Your task to perform on an android device: Go to Google Image 0: 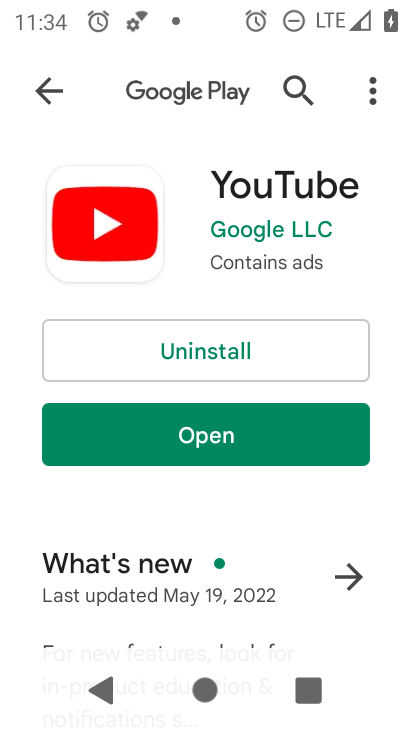
Step 0: press back button
Your task to perform on an android device: Go to Google Image 1: 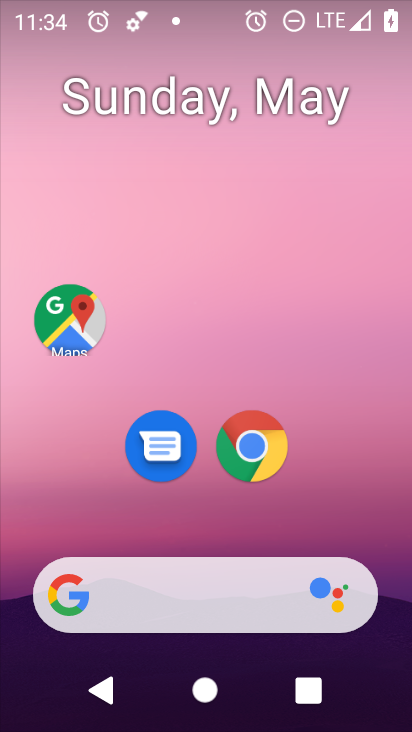
Step 1: drag from (333, 460) to (224, 5)
Your task to perform on an android device: Go to Google Image 2: 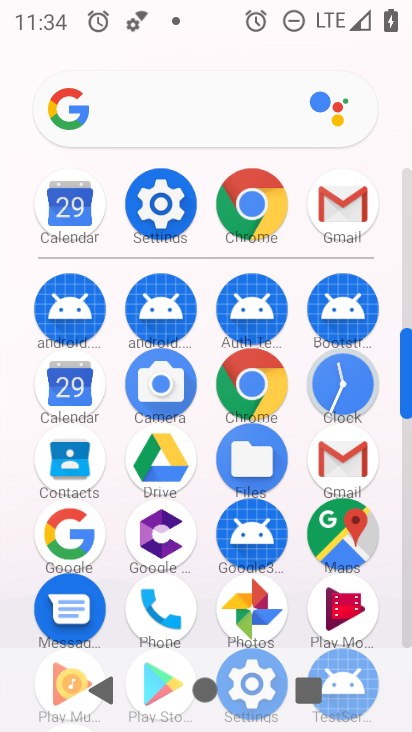
Step 2: drag from (3, 585) to (9, 287)
Your task to perform on an android device: Go to Google Image 3: 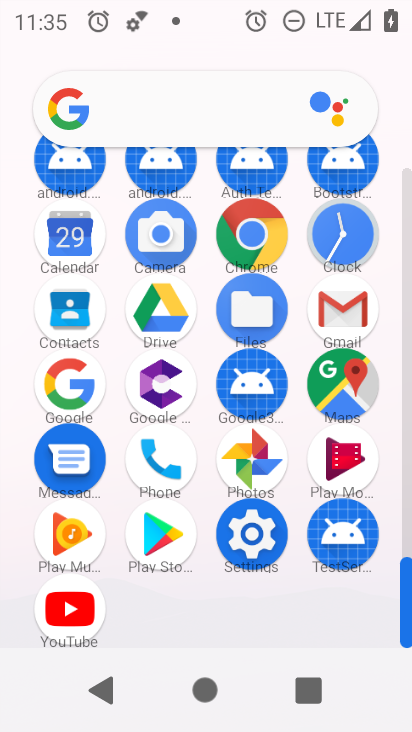
Step 3: click (252, 227)
Your task to perform on an android device: Go to Google Image 4: 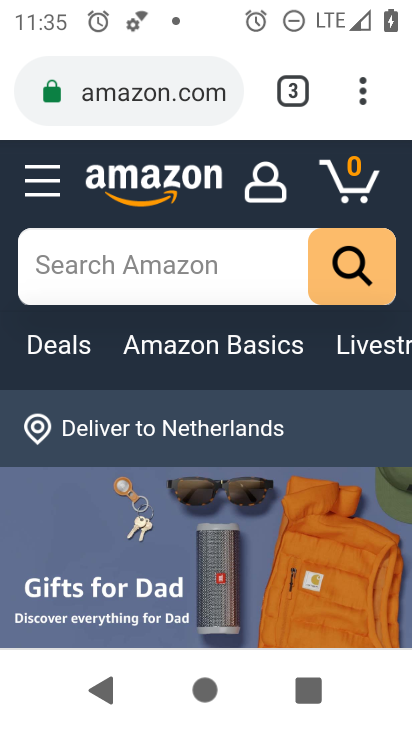
Step 4: click (179, 83)
Your task to perform on an android device: Go to Google Image 5: 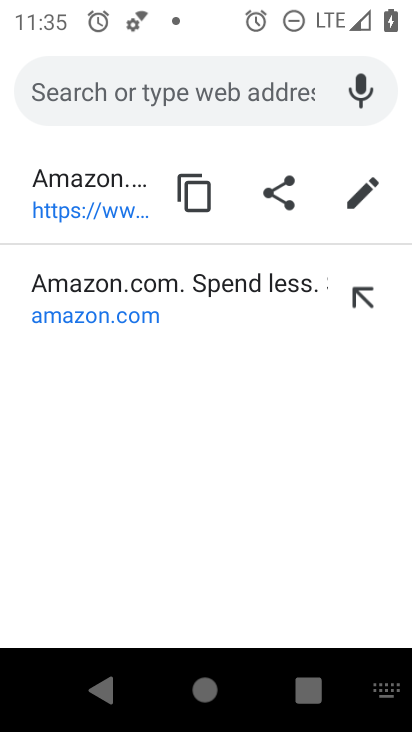
Step 5: type "Google"
Your task to perform on an android device: Go to Google Image 6: 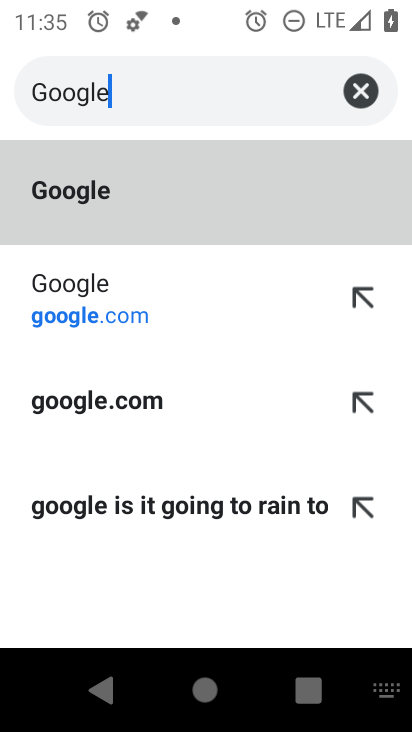
Step 6: type ""
Your task to perform on an android device: Go to Google Image 7: 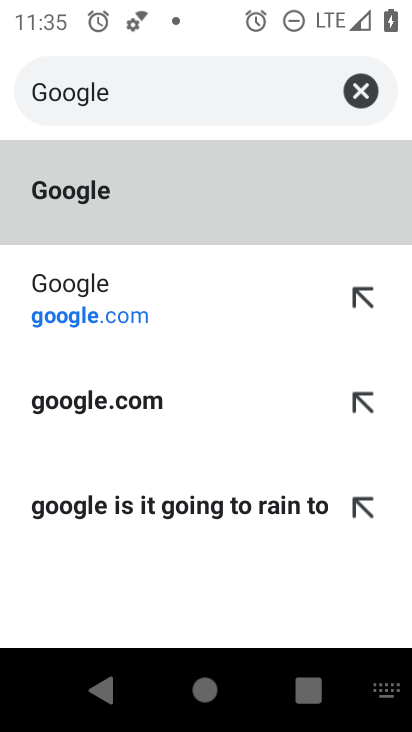
Step 7: click (114, 291)
Your task to perform on an android device: Go to Google Image 8: 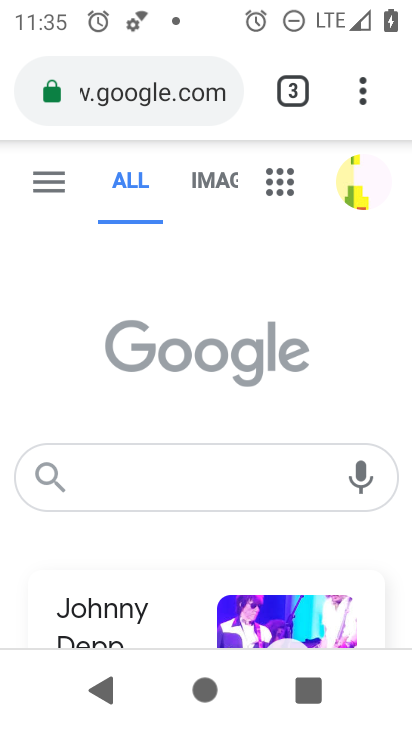
Step 8: task complete